Your task to perform on an android device: turn off javascript in the chrome app Image 0: 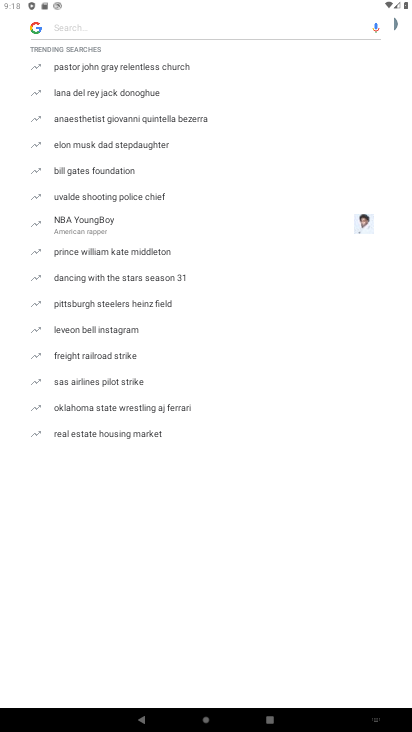
Step 0: press home button
Your task to perform on an android device: turn off javascript in the chrome app Image 1: 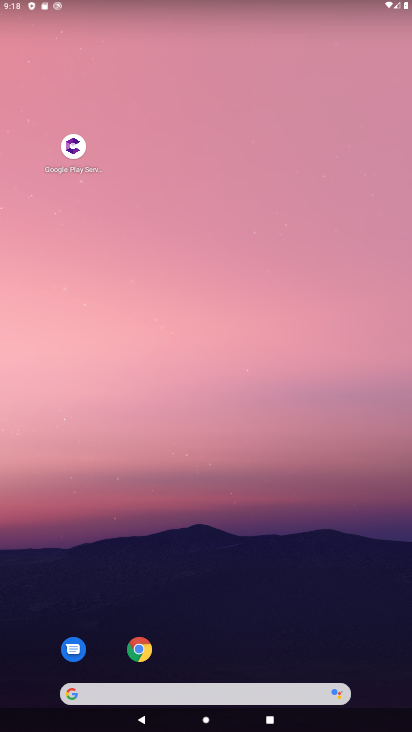
Step 1: click (140, 663)
Your task to perform on an android device: turn off javascript in the chrome app Image 2: 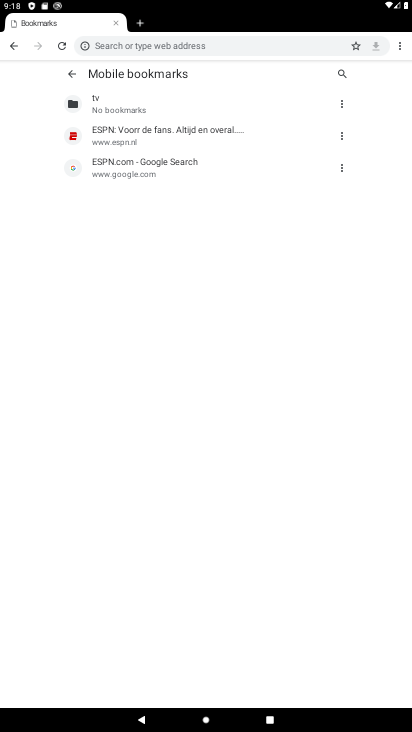
Step 2: click (399, 45)
Your task to perform on an android device: turn off javascript in the chrome app Image 3: 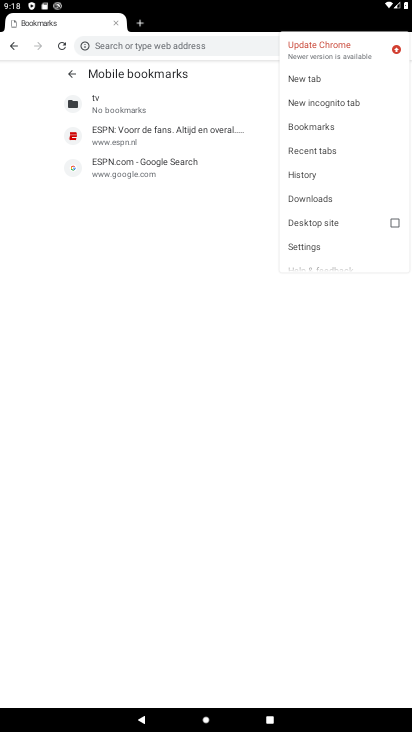
Step 3: click (306, 248)
Your task to perform on an android device: turn off javascript in the chrome app Image 4: 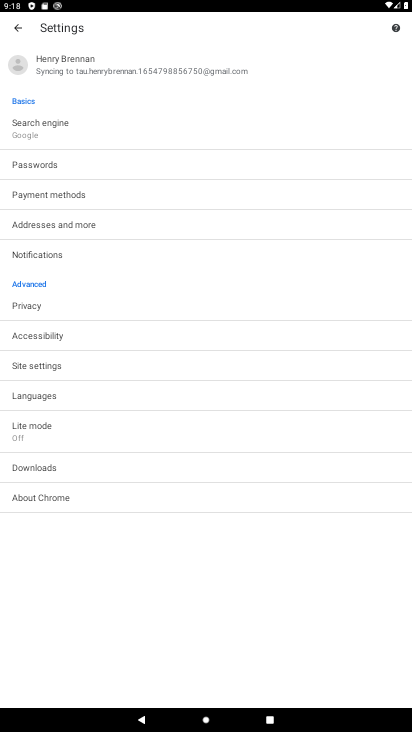
Step 4: click (38, 371)
Your task to perform on an android device: turn off javascript in the chrome app Image 5: 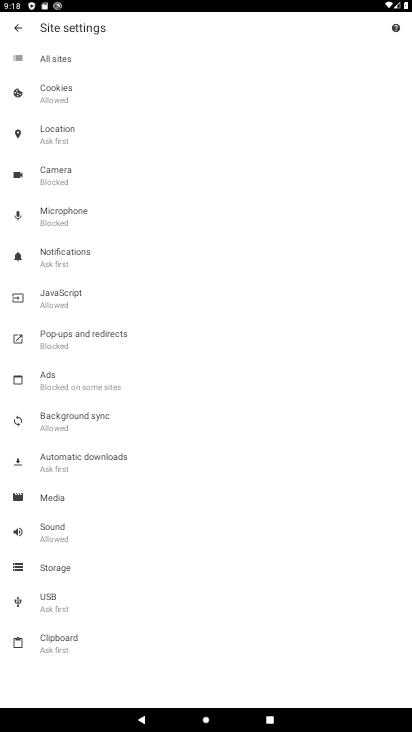
Step 5: click (70, 305)
Your task to perform on an android device: turn off javascript in the chrome app Image 6: 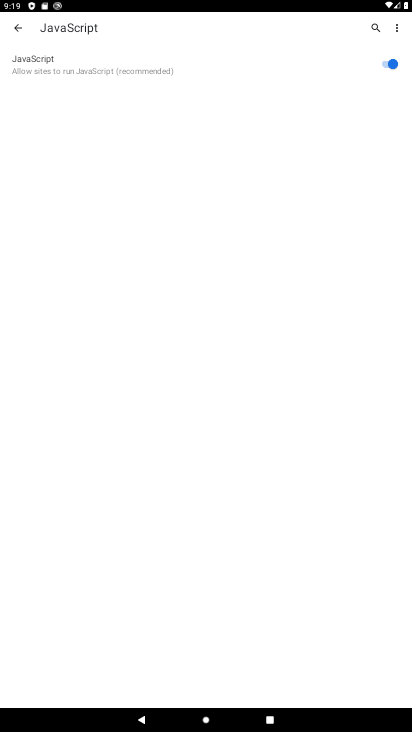
Step 6: click (387, 58)
Your task to perform on an android device: turn off javascript in the chrome app Image 7: 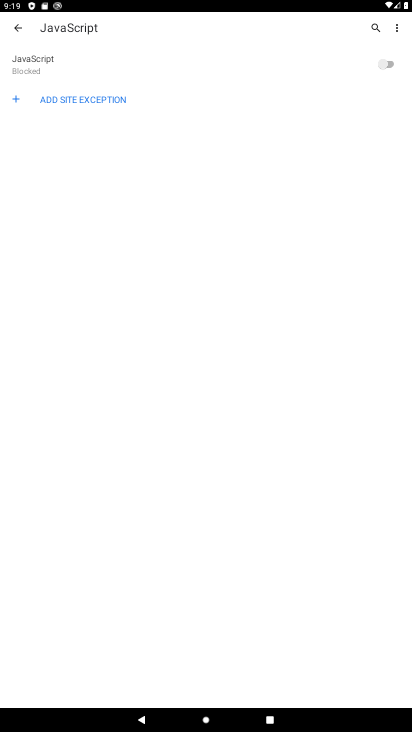
Step 7: task complete